Your task to perform on an android device: Go to ESPN.com Image 0: 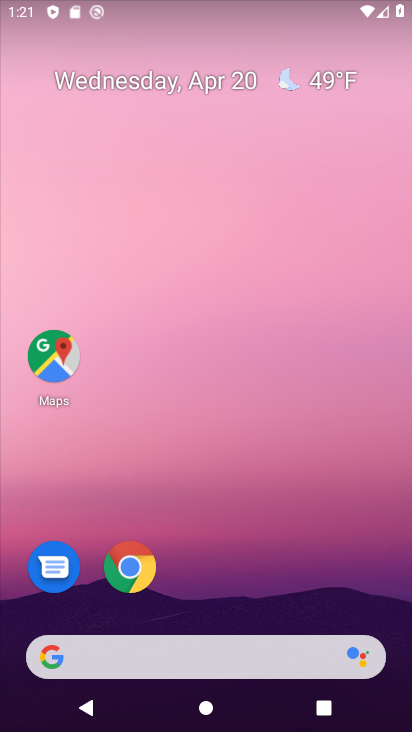
Step 0: drag from (255, 531) to (202, 256)
Your task to perform on an android device: Go to ESPN.com Image 1: 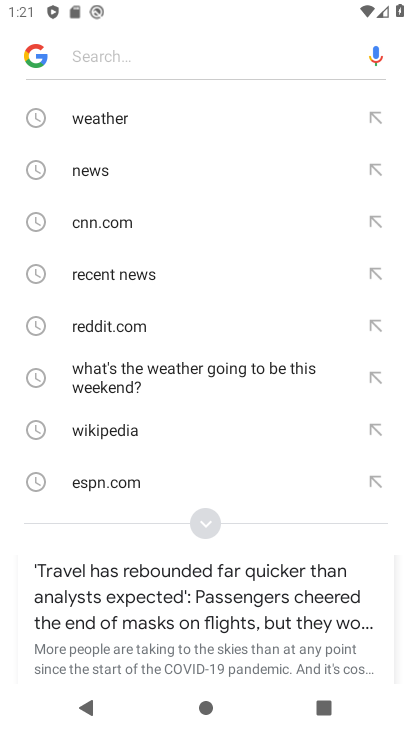
Step 1: click (95, 54)
Your task to perform on an android device: Go to ESPN.com Image 2: 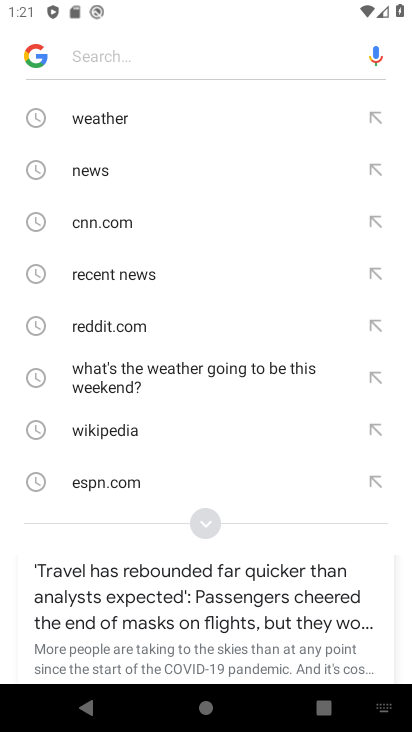
Step 2: type "ESPN.com"
Your task to perform on an android device: Go to ESPN.com Image 3: 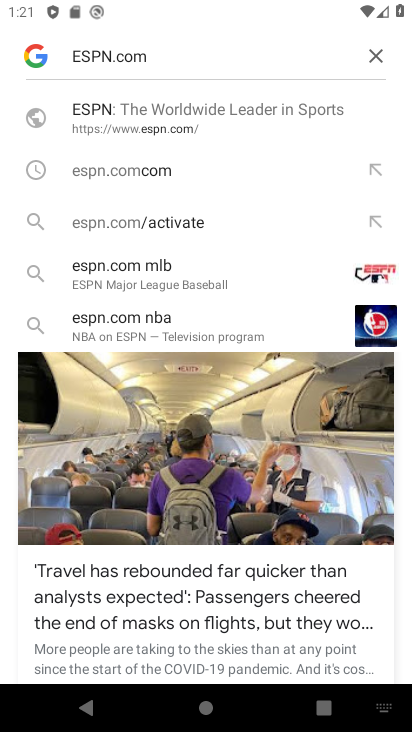
Step 3: click (147, 122)
Your task to perform on an android device: Go to ESPN.com Image 4: 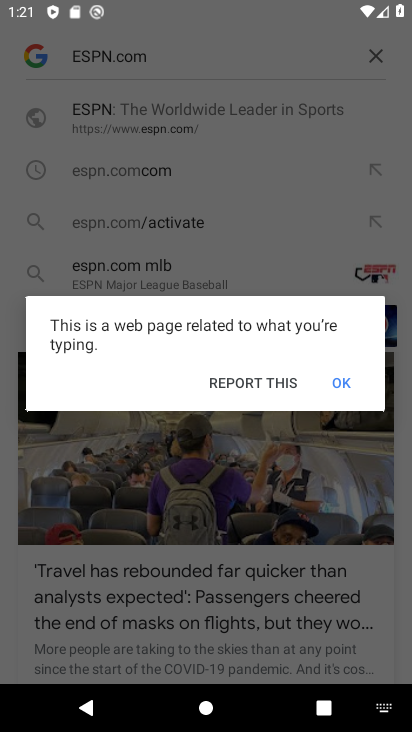
Step 4: click (345, 385)
Your task to perform on an android device: Go to ESPN.com Image 5: 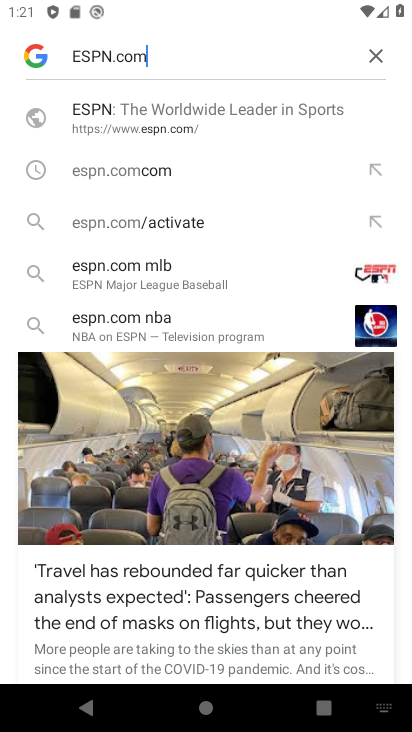
Step 5: click (136, 133)
Your task to perform on an android device: Go to ESPN.com Image 6: 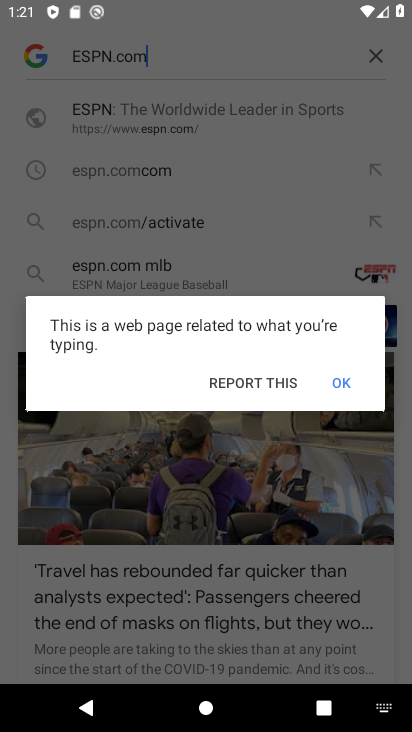
Step 6: click (356, 385)
Your task to perform on an android device: Go to ESPN.com Image 7: 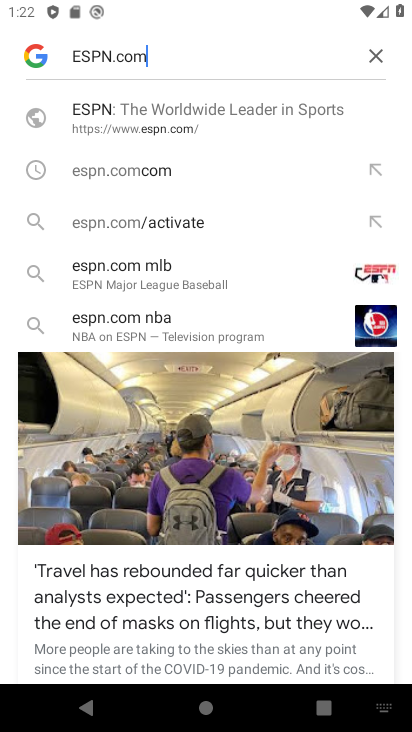
Step 7: click (126, 121)
Your task to perform on an android device: Go to ESPN.com Image 8: 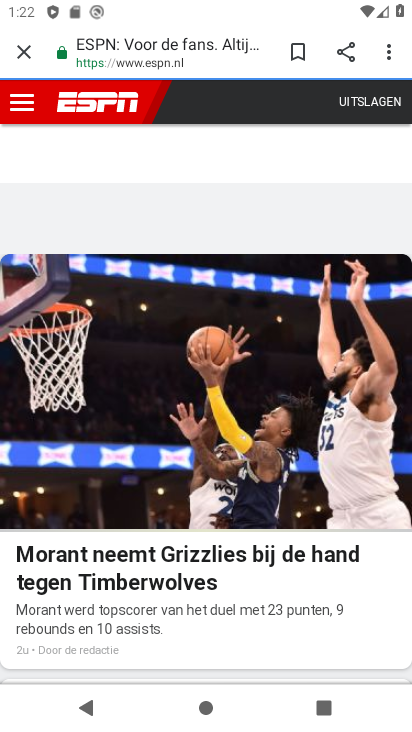
Step 8: task complete